Your task to perform on an android device: Go to calendar. Show me events next week Image 0: 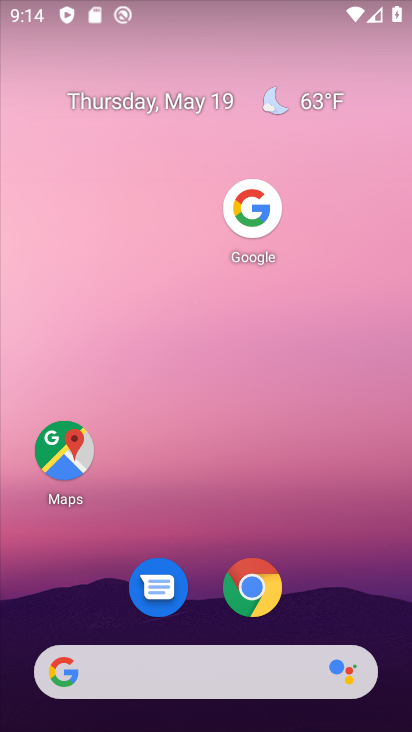
Step 0: drag from (191, 334) to (308, 3)
Your task to perform on an android device: Go to calendar. Show me events next week Image 1: 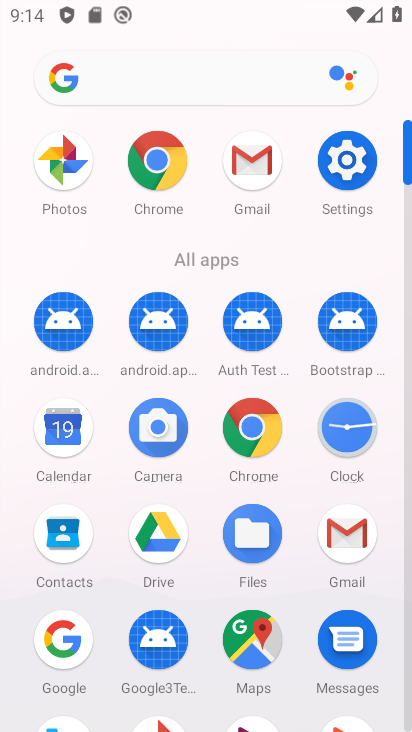
Step 1: click (68, 439)
Your task to perform on an android device: Go to calendar. Show me events next week Image 2: 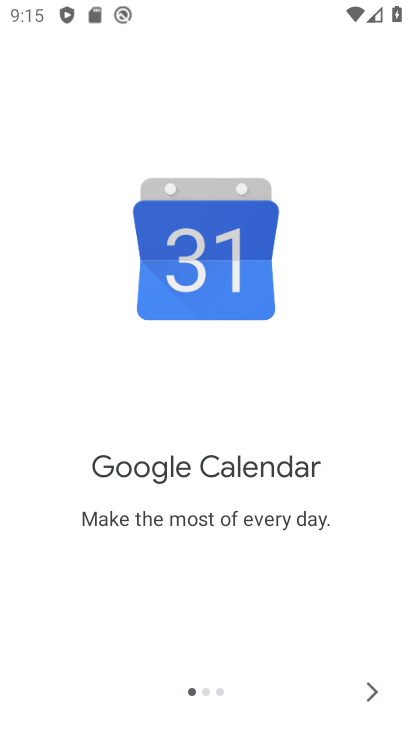
Step 2: click (367, 686)
Your task to perform on an android device: Go to calendar. Show me events next week Image 3: 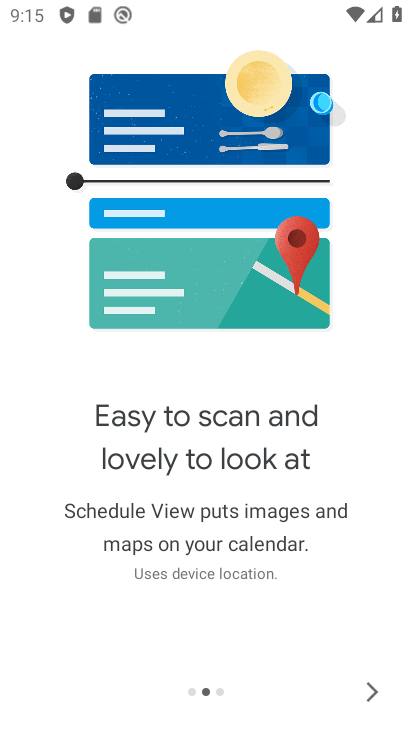
Step 3: click (365, 685)
Your task to perform on an android device: Go to calendar. Show me events next week Image 4: 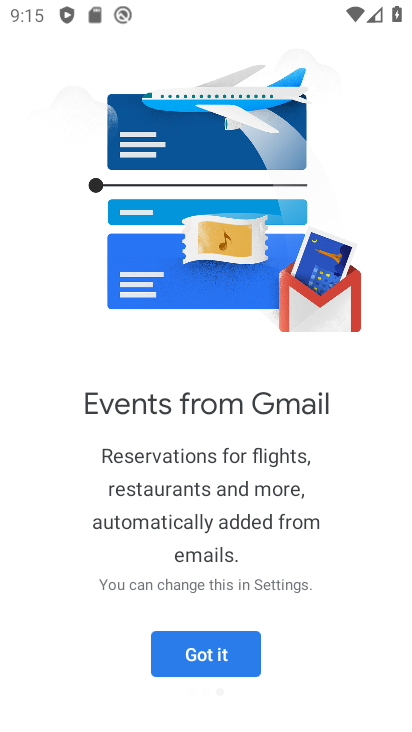
Step 4: click (365, 685)
Your task to perform on an android device: Go to calendar. Show me events next week Image 5: 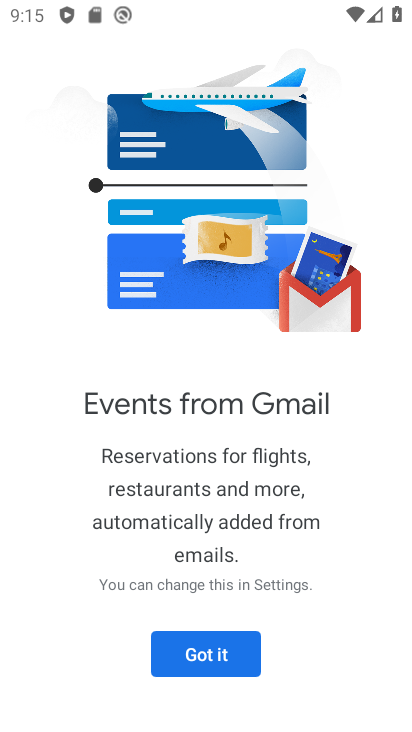
Step 5: click (231, 663)
Your task to perform on an android device: Go to calendar. Show me events next week Image 6: 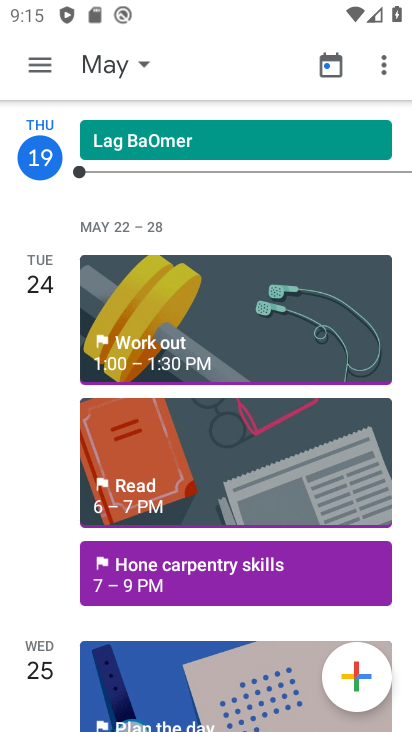
Step 6: click (28, 65)
Your task to perform on an android device: Go to calendar. Show me events next week Image 7: 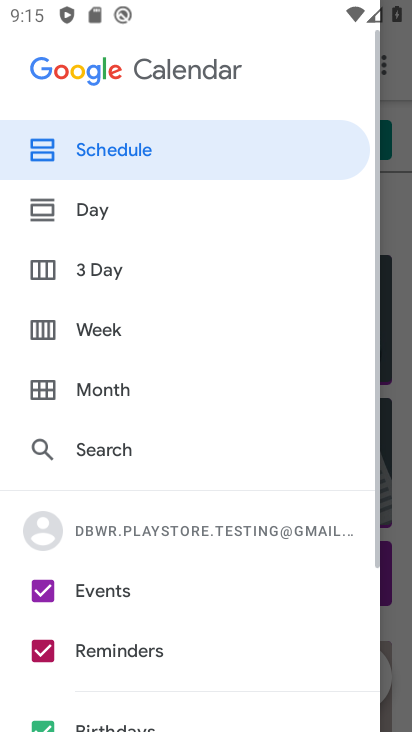
Step 7: click (103, 324)
Your task to perform on an android device: Go to calendar. Show me events next week Image 8: 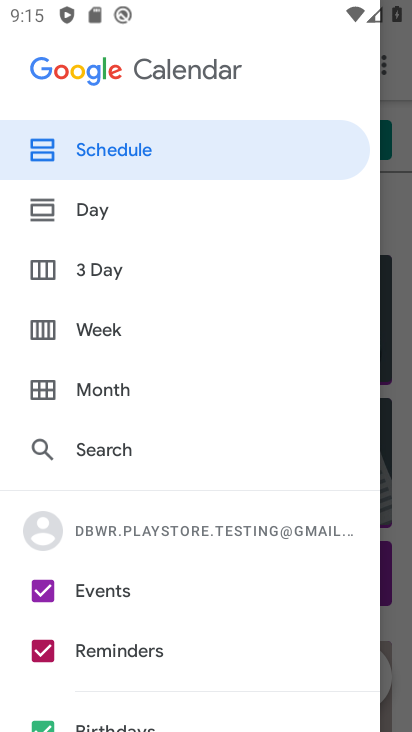
Step 8: click (103, 324)
Your task to perform on an android device: Go to calendar. Show me events next week Image 9: 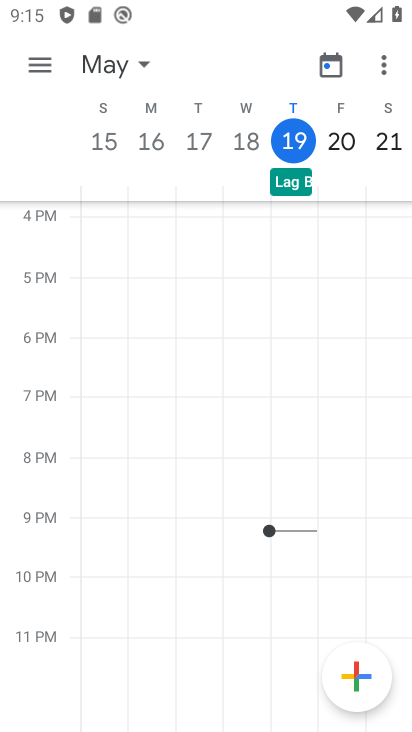
Step 9: task complete